Your task to perform on an android device: Open Yahoo.com Image 0: 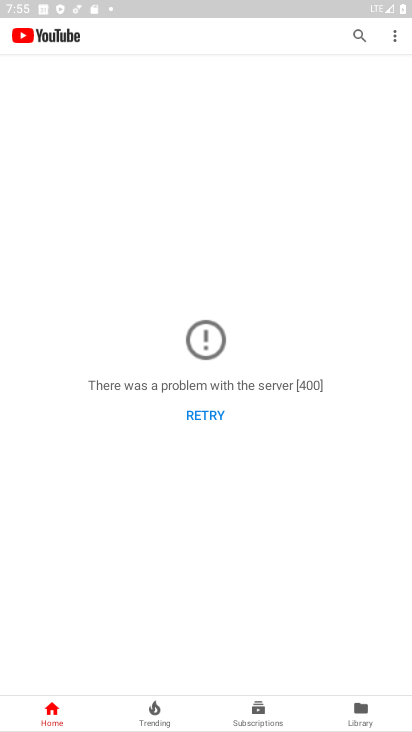
Step 0: press back button
Your task to perform on an android device: Open Yahoo.com Image 1: 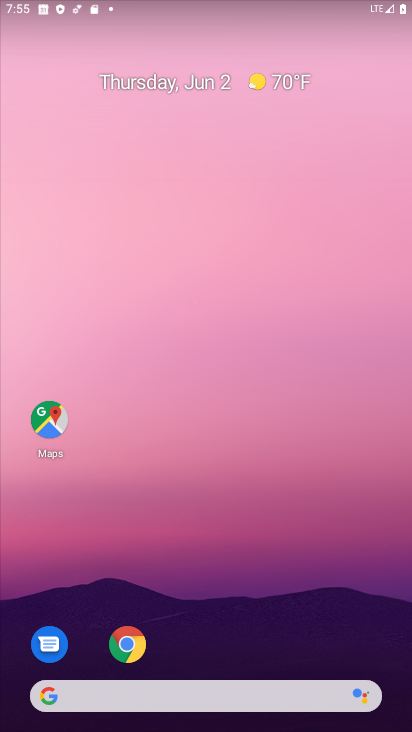
Step 1: drag from (225, 607) to (229, 30)
Your task to perform on an android device: Open Yahoo.com Image 2: 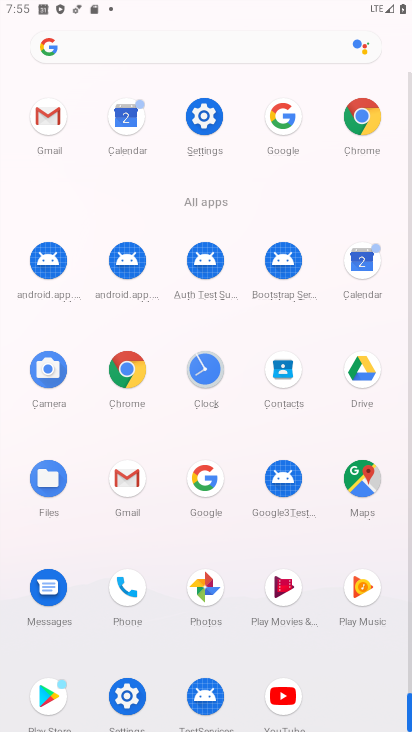
Step 2: click (363, 115)
Your task to perform on an android device: Open Yahoo.com Image 3: 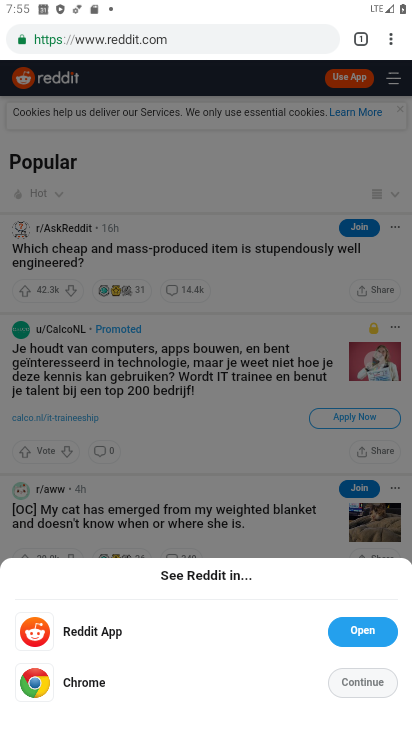
Step 3: click (151, 25)
Your task to perform on an android device: Open Yahoo.com Image 4: 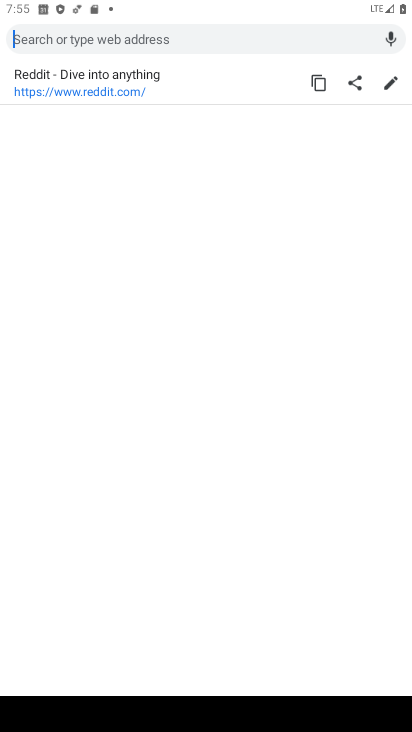
Step 4: type " Yahoo.com"
Your task to perform on an android device: Open Yahoo.com Image 5: 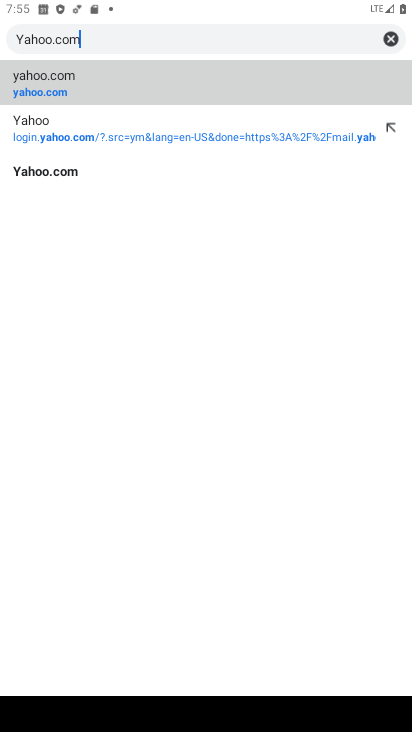
Step 5: type ""
Your task to perform on an android device: Open Yahoo.com Image 6: 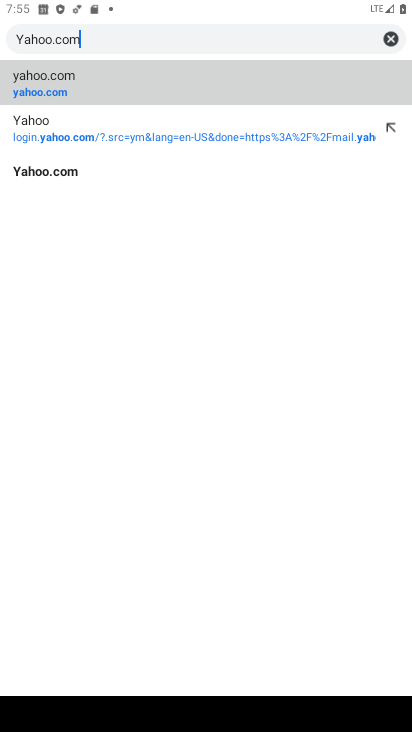
Step 6: click (62, 95)
Your task to perform on an android device: Open Yahoo.com Image 7: 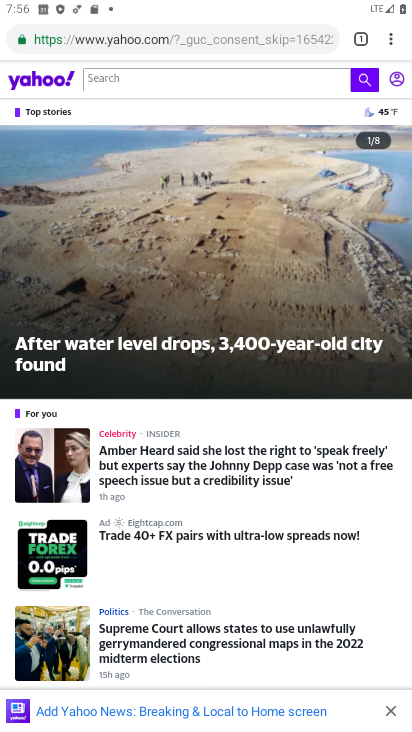
Step 7: task complete